Your task to perform on an android device: turn on javascript in the chrome app Image 0: 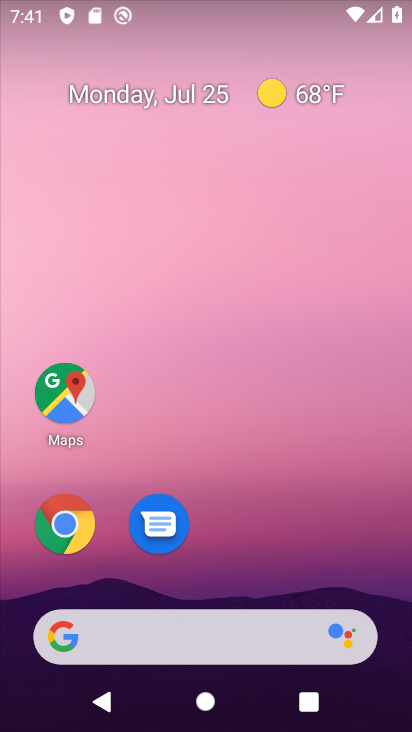
Step 0: click (72, 516)
Your task to perform on an android device: turn on javascript in the chrome app Image 1: 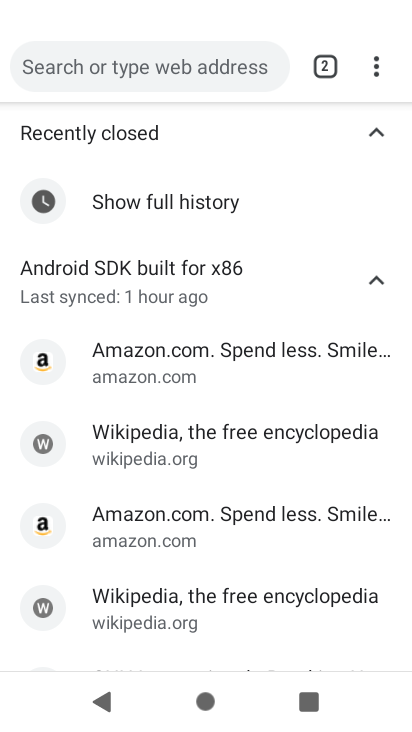
Step 1: click (376, 58)
Your task to perform on an android device: turn on javascript in the chrome app Image 2: 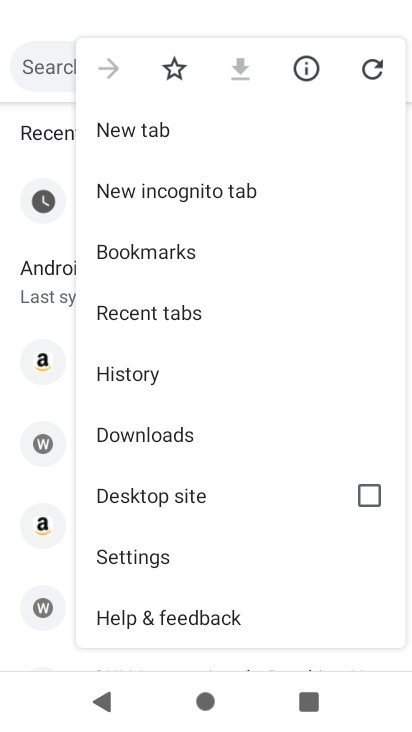
Step 2: click (156, 548)
Your task to perform on an android device: turn on javascript in the chrome app Image 3: 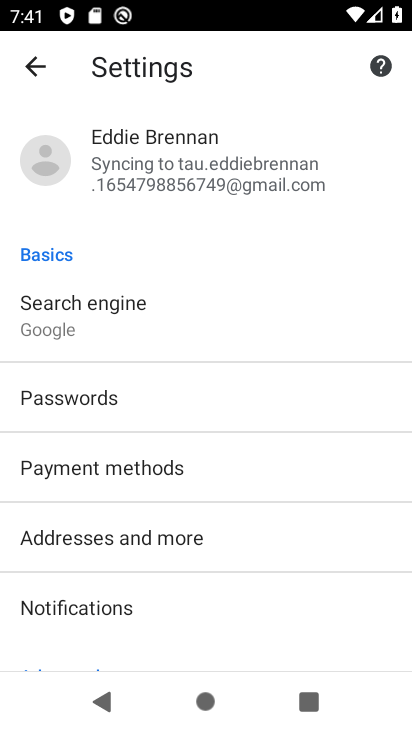
Step 3: drag from (155, 554) to (222, 283)
Your task to perform on an android device: turn on javascript in the chrome app Image 4: 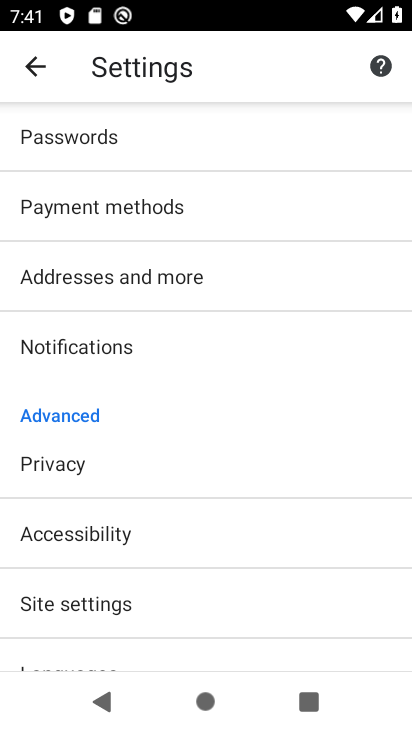
Step 4: click (103, 591)
Your task to perform on an android device: turn on javascript in the chrome app Image 5: 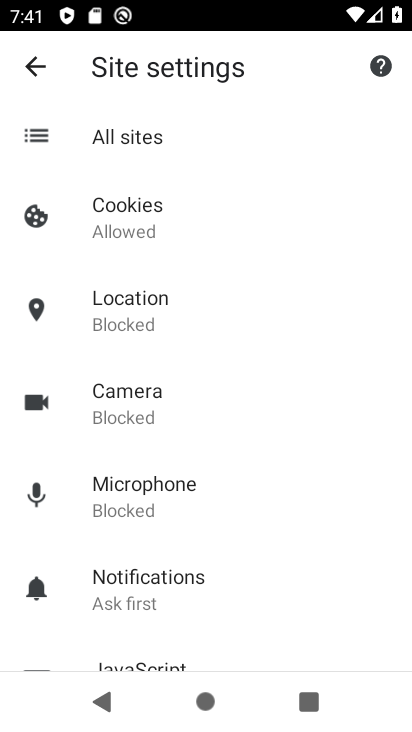
Step 5: drag from (202, 516) to (254, 379)
Your task to perform on an android device: turn on javascript in the chrome app Image 6: 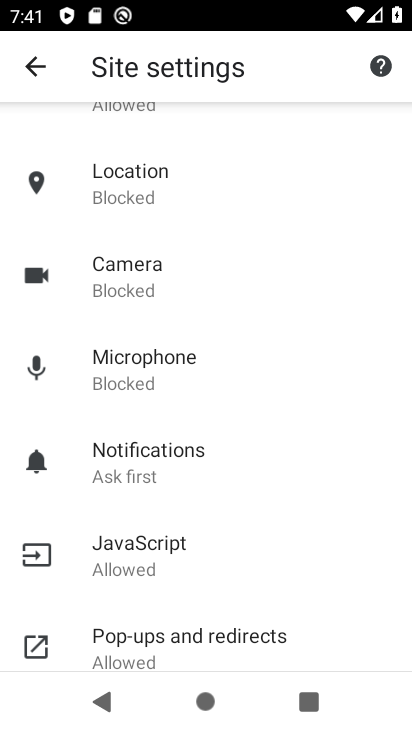
Step 6: click (155, 558)
Your task to perform on an android device: turn on javascript in the chrome app Image 7: 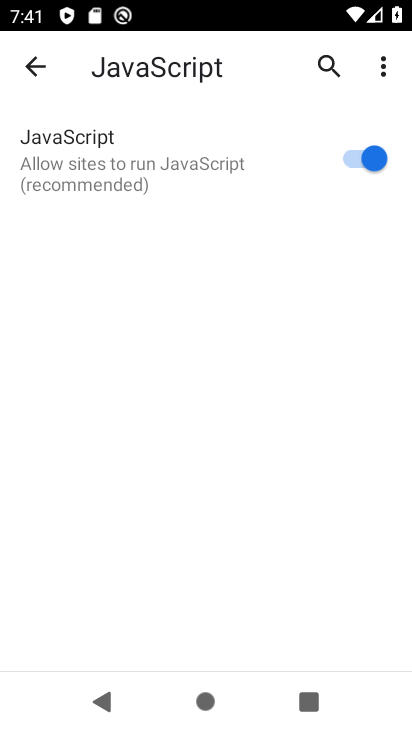
Step 7: task complete